Your task to perform on an android device: turn notification dots off Image 0: 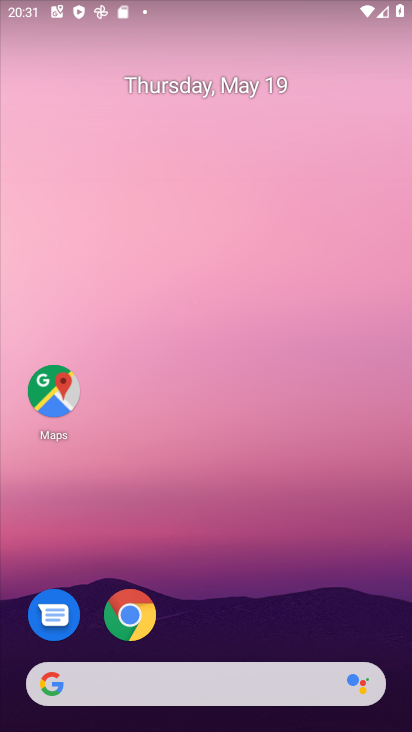
Step 0: drag from (235, 590) to (241, 49)
Your task to perform on an android device: turn notification dots off Image 1: 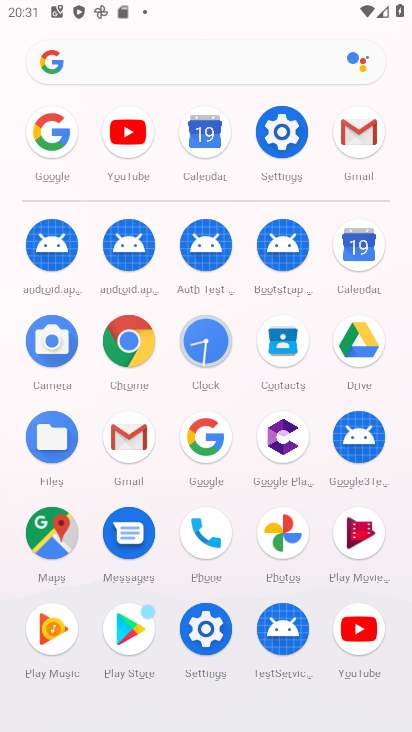
Step 1: click (279, 133)
Your task to perform on an android device: turn notification dots off Image 2: 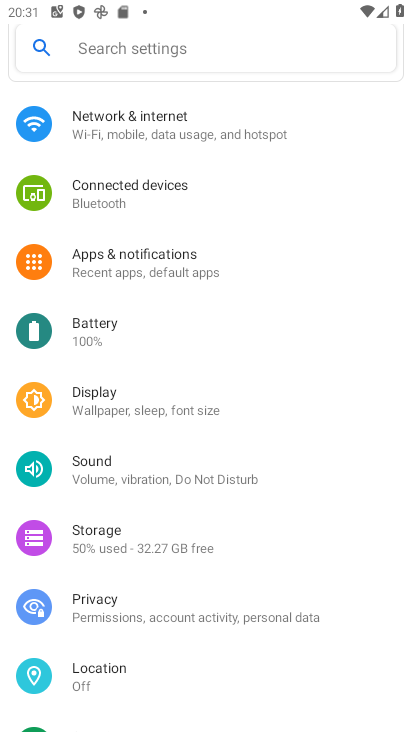
Step 2: click (169, 266)
Your task to perform on an android device: turn notification dots off Image 3: 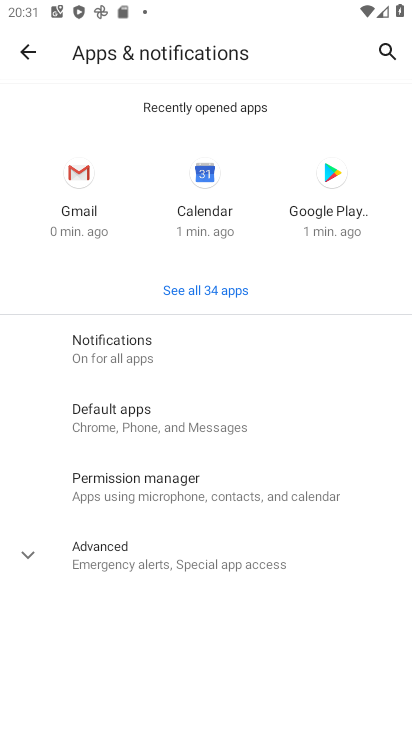
Step 3: click (138, 368)
Your task to perform on an android device: turn notification dots off Image 4: 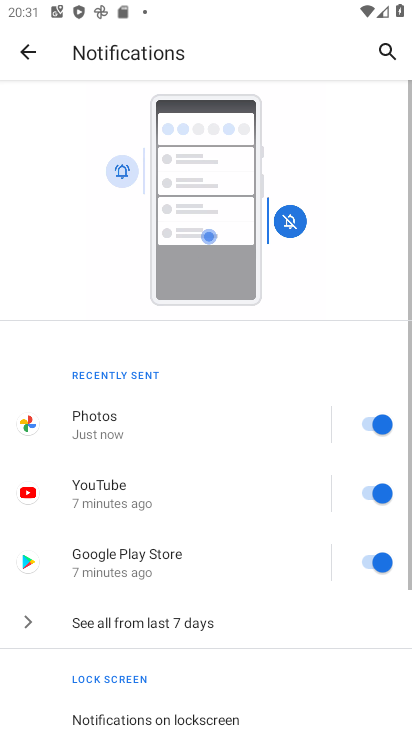
Step 4: drag from (268, 530) to (289, 167)
Your task to perform on an android device: turn notification dots off Image 5: 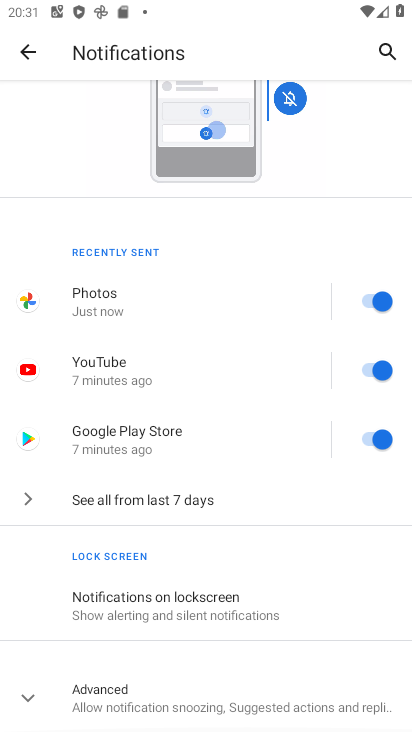
Step 5: click (117, 693)
Your task to perform on an android device: turn notification dots off Image 6: 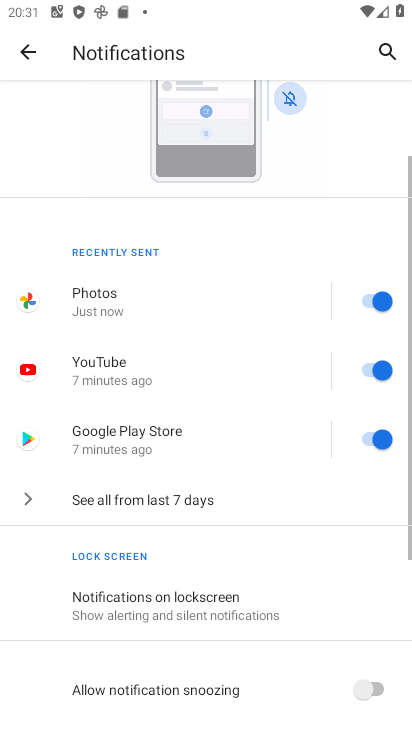
Step 6: drag from (274, 670) to (308, 273)
Your task to perform on an android device: turn notification dots off Image 7: 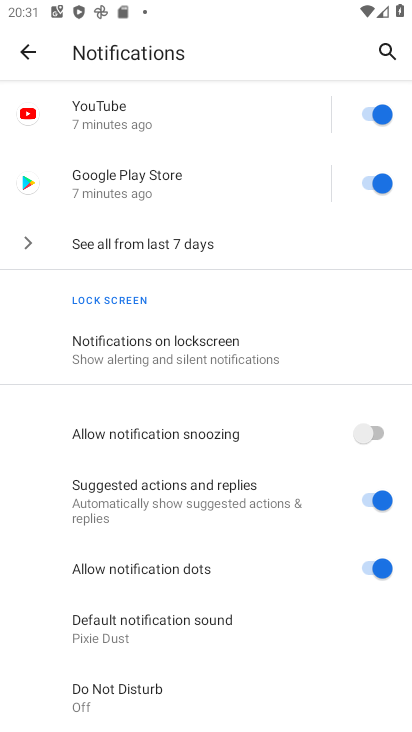
Step 7: click (377, 562)
Your task to perform on an android device: turn notification dots off Image 8: 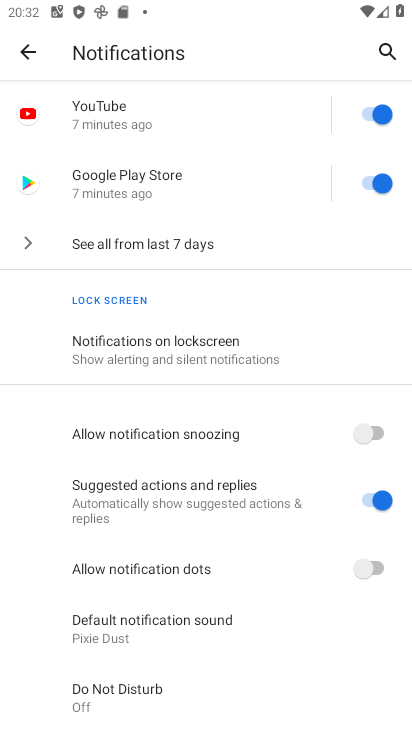
Step 8: task complete